Your task to perform on an android device: Open Yahoo.com Image 0: 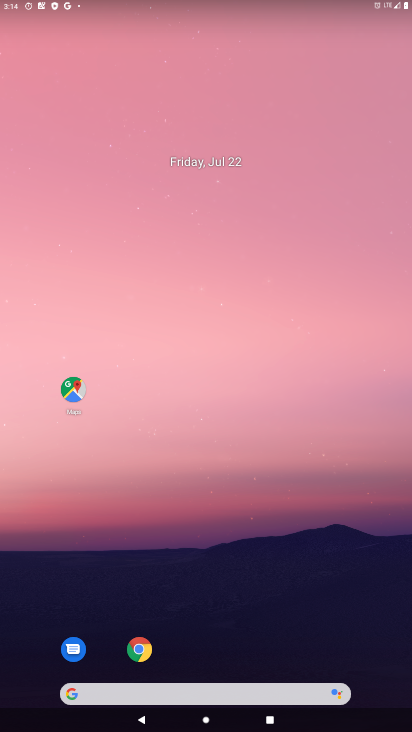
Step 0: click (141, 650)
Your task to perform on an android device: Open Yahoo.com Image 1: 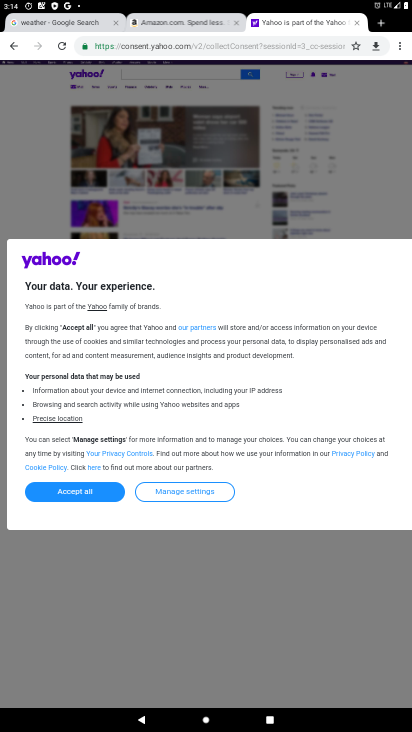
Step 1: task complete